Your task to perform on an android device: set default search engine in the chrome app Image 0: 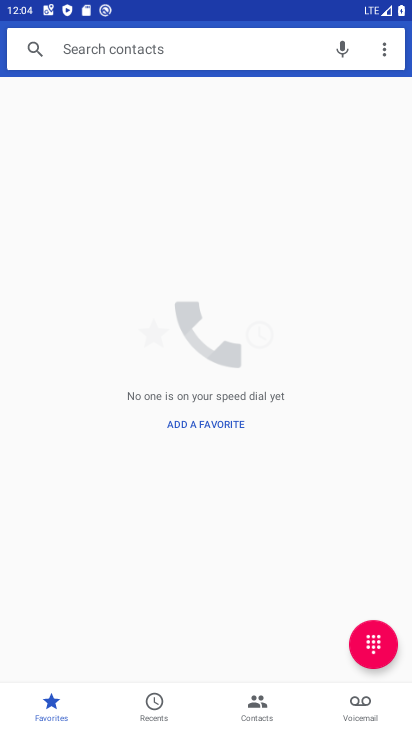
Step 0: press home button
Your task to perform on an android device: set default search engine in the chrome app Image 1: 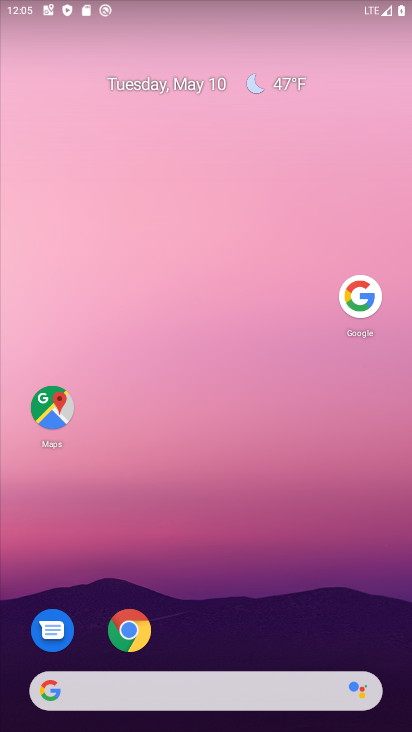
Step 1: drag from (154, 690) to (311, 216)
Your task to perform on an android device: set default search engine in the chrome app Image 2: 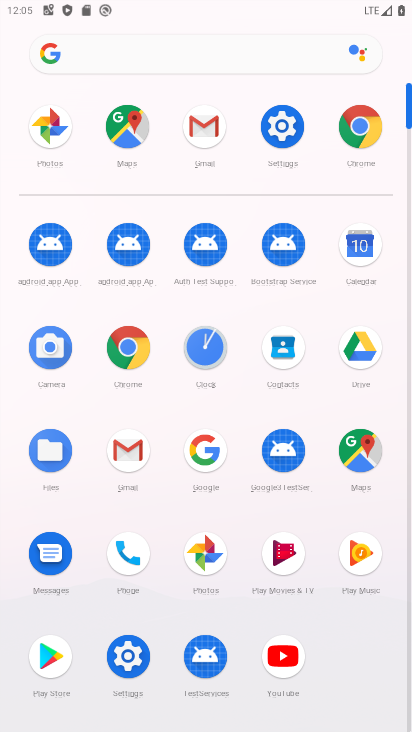
Step 2: click (357, 141)
Your task to perform on an android device: set default search engine in the chrome app Image 3: 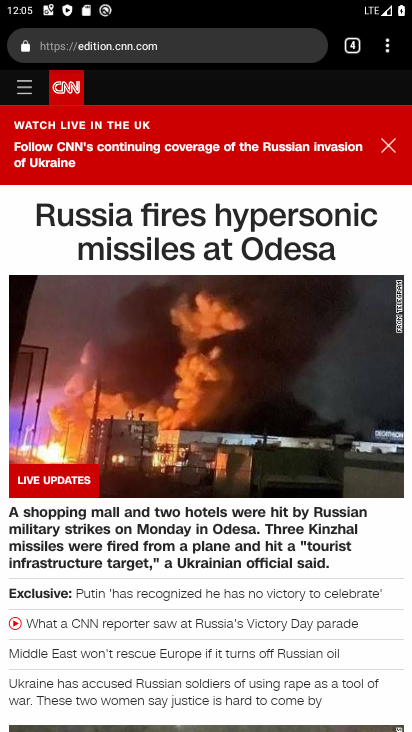
Step 3: drag from (391, 55) to (247, 505)
Your task to perform on an android device: set default search engine in the chrome app Image 4: 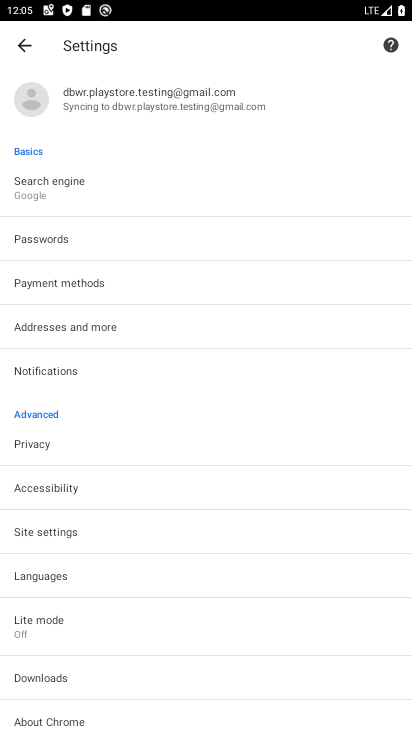
Step 4: click (49, 191)
Your task to perform on an android device: set default search engine in the chrome app Image 5: 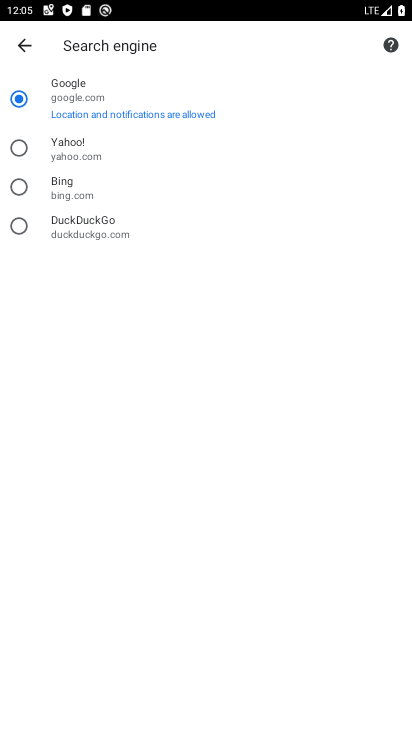
Step 5: click (20, 148)
Your task to perform on an android device: set default search engine in the chrome app Image 6: 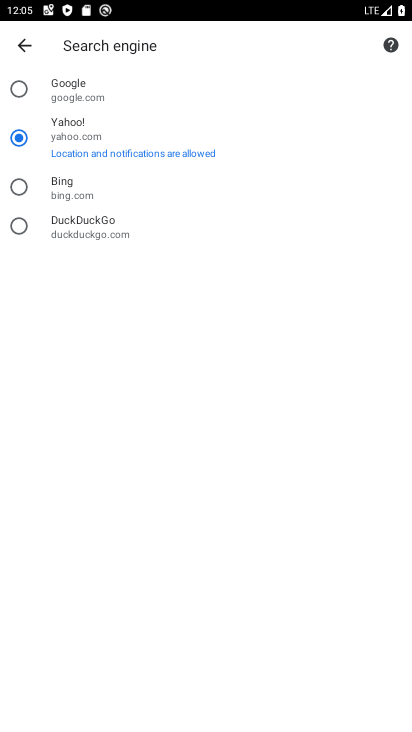
Step 6: task complete